Your task to perform on an android device: Open Google Image 0: 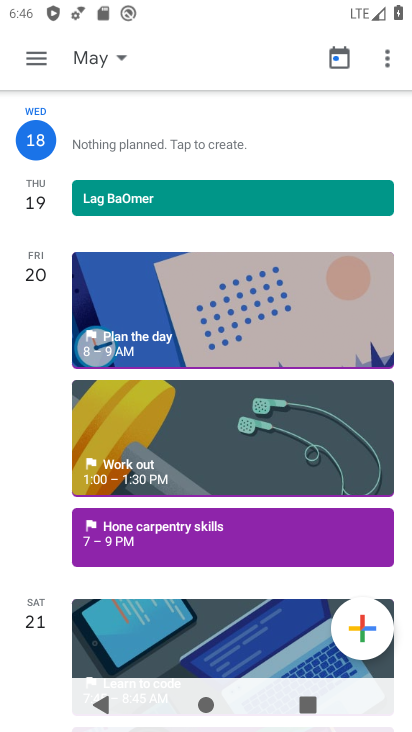
Step 0: press home button
Your task to perform on an android device: Open Google Image 1: 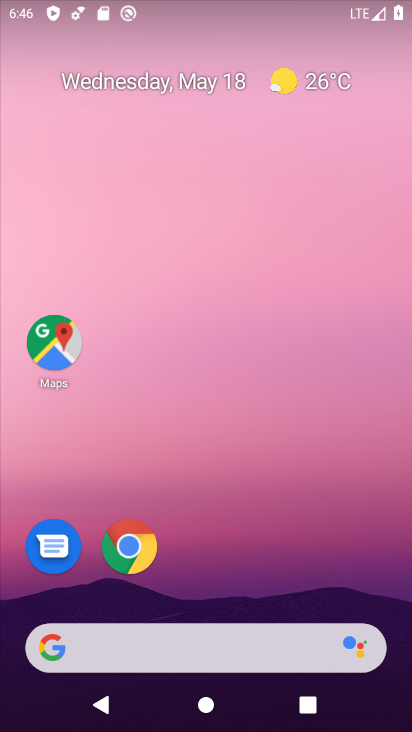
Step 1: drag from (375, 598) to (274, 23)
Your task to perform on an android device: Open Google Image 2: 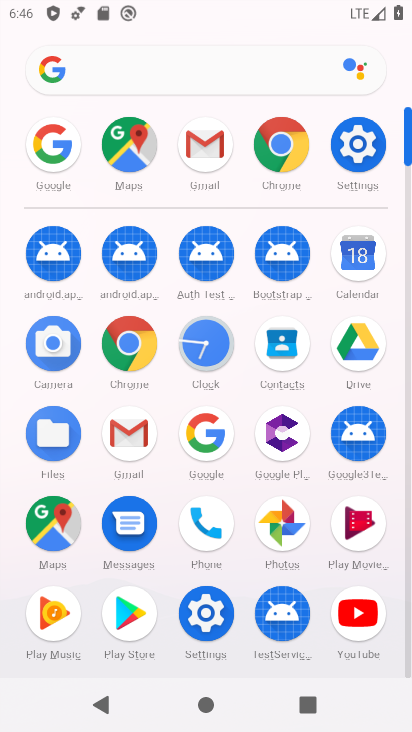
Step 2: click (217, 428)
Your task to perform on an android device: Open Google Image 3: 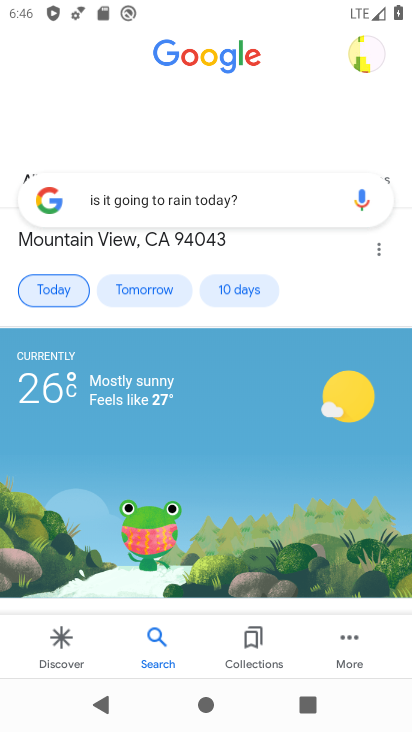
Step 3: task complete